Your task to perform on an android device: Clear the cart on amazon.com. Add "macbook" to the cart on amazon.com, then select checkout. Image 0: 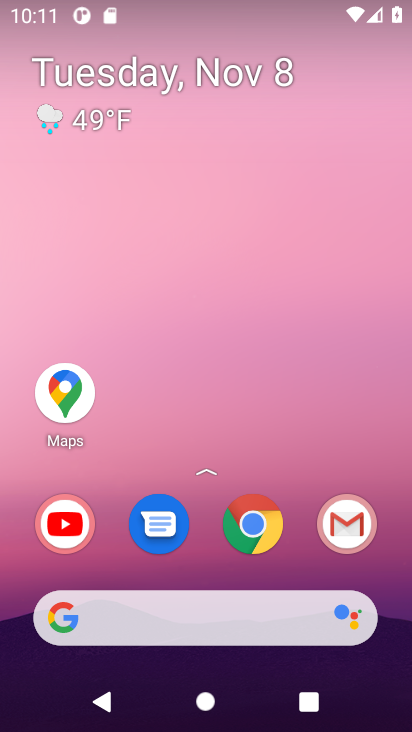
Step 0: click (278, 544)
Your task to perform on an android device: Clear the cart on amazon.com. Add "macbook" to the cart on amazon.com, then select checkout. Image 1: 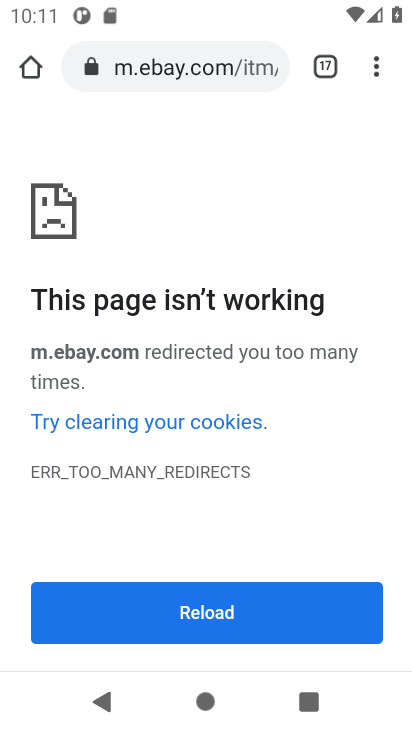
Step 1: click (196, 70)
Your task to perform on an android device: Clear the cart on amazon.com. Add "macbook" to the cart on amazon.com, then select checkout. Image 2: 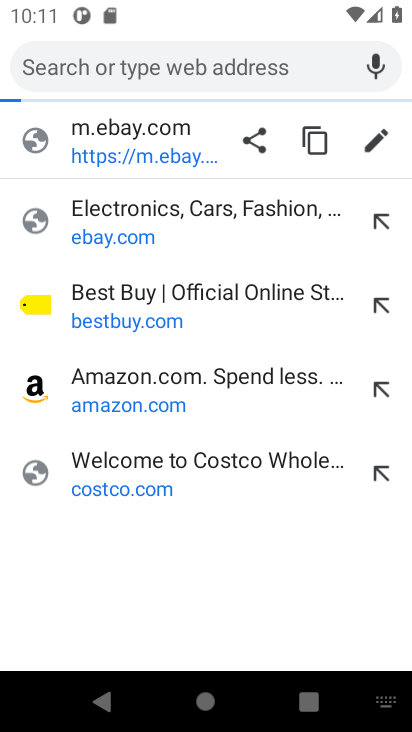
Step 2: click (119, 371)
Your task to perform on an android device: Clear the cart on amazon.com. Add "macbook" to the cart on amazon.com, then select checkout. Image 3: 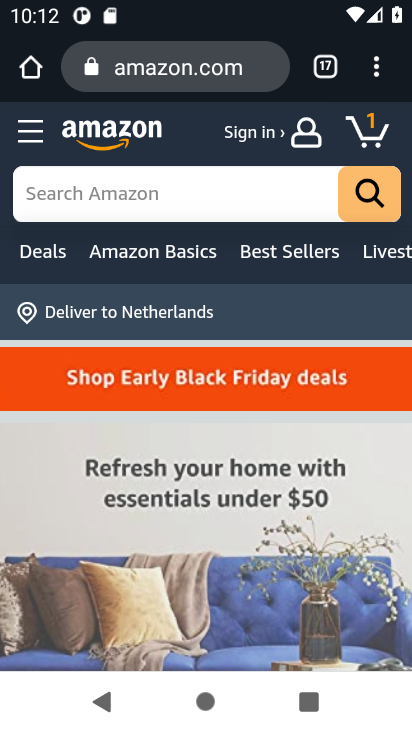
Step 3: click (373, 139)
Your task to perform on an android device: Clear the cart on amazon.com. Add "macbook" to the cart on amazon.com, then select checkout. Image 4: 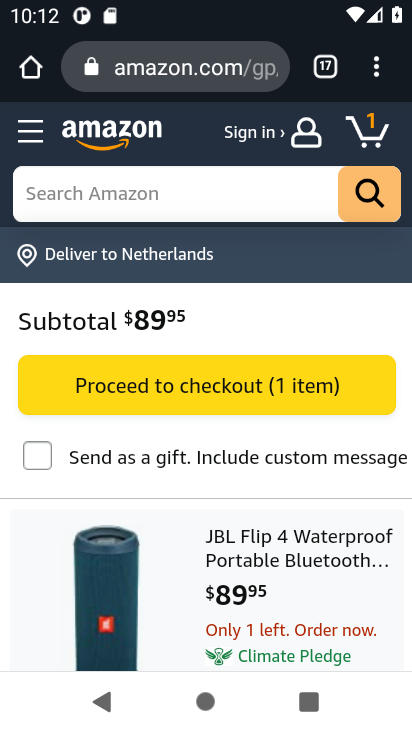
Step 4: drag from (159, 456) to (155, 213)
Your task to perform on an android device: Clear the cart on amazon.com. Add "macbook" to the cart on amazon.com, then select checkout. Image 5: 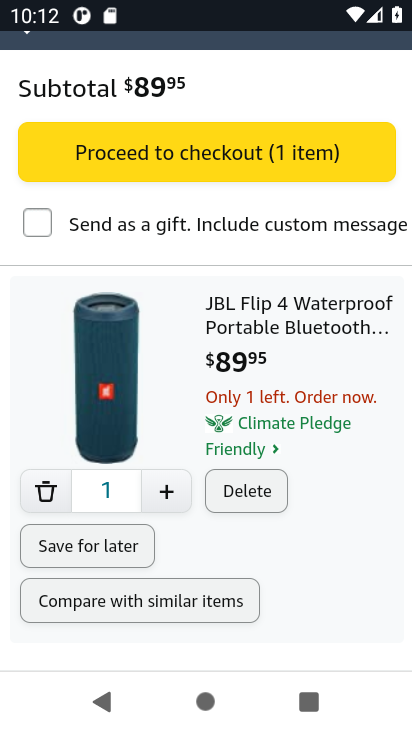
Step 5: click (237, 489)
Your task to perform on an android device: Clear the cart on amazon.com. Add "macbook" to the cart on amazon.com, then select checkout. Image 6: 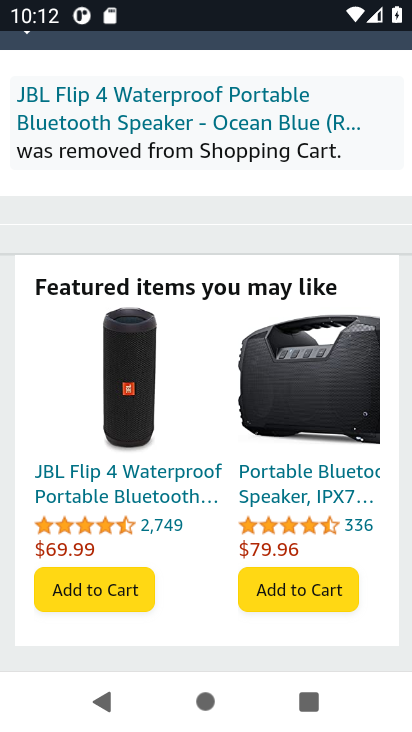
Step 6: drag from (189, 416) to (182, 533)
Your task to perform on an android device: Clear the cart on amazon.com. Add "macbook" to the cart on amazon.com, then select checkout. Image 7: 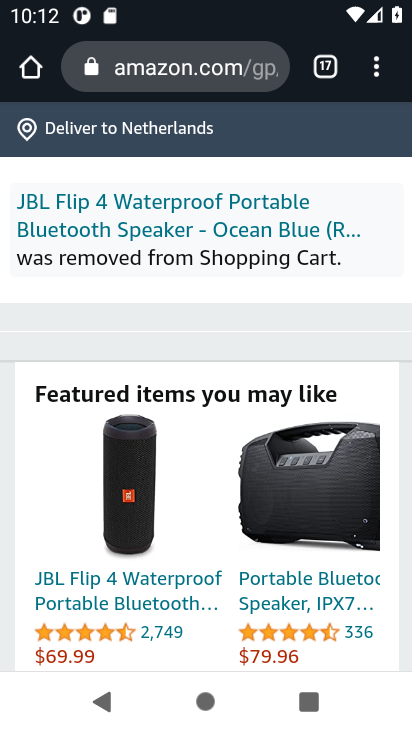
Step 7: drag from (226, 184) to (247, 464)
Your task to perform on an android device: Clear the cart on amazon.com. Add "macbook" to the cart on amazon.com, then select checkout. Image 8: 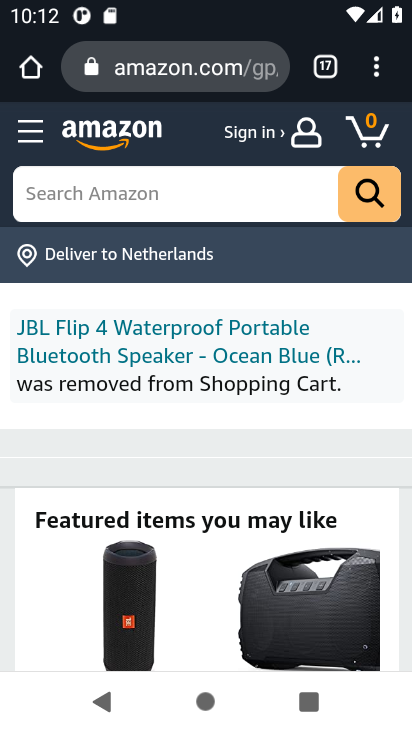
Step 8: click (168, 195)
Your task to perform on an android device: Clear the cart on amazon.com. Add "macbook" to the cart on amazon.com, then select checkout. Image 9: 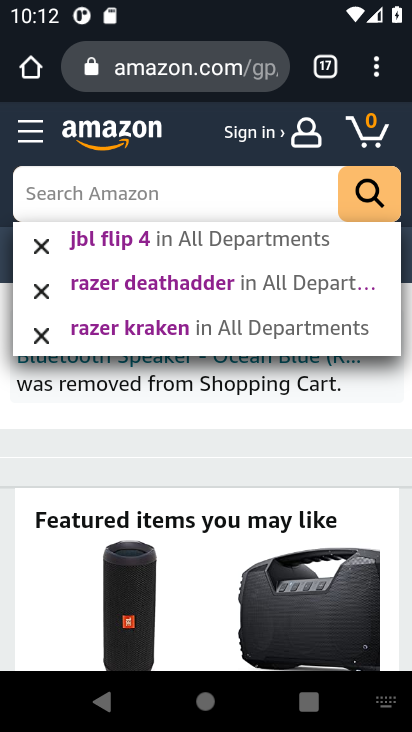
Step 9: type "macbook"
Your task to perform on an android device: Clear the cart on amazon.com. Add "macbook" to the cart on amazon.com, then select checkout. Image 10: 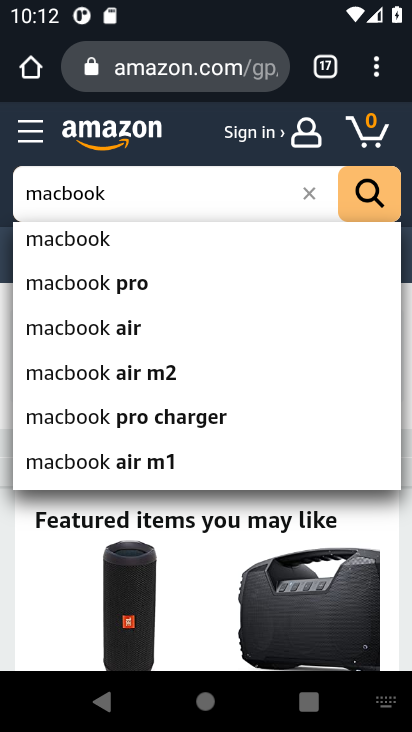
Step 10: click (81, 239)
Your task to perform on an android device: Clear the cart on amazon.com. Add "macbook" to the cart on amazon.com, then select checkout. Image 11: 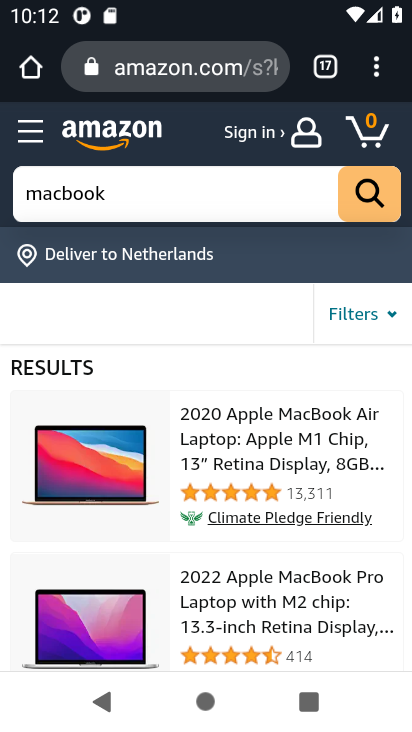
Step 11: click (215, 477)
Your task to perform on an android device: Clear the cart on amazon.com. Add "macbook" to the cart on amazon.com, then select checkout. Image 12: 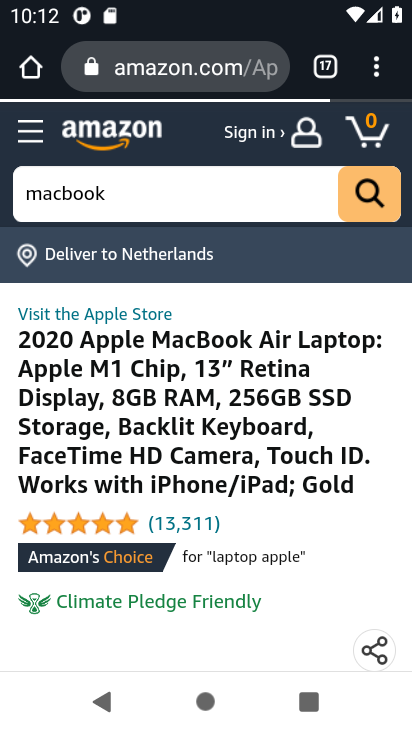
Step 12: drag from (226, 533) to (199, 190)
Your task to perform on an android device: Clear the cart on amazon.com. Add "macbook" to the cart on amazon.com, then select checkout. Image 13: 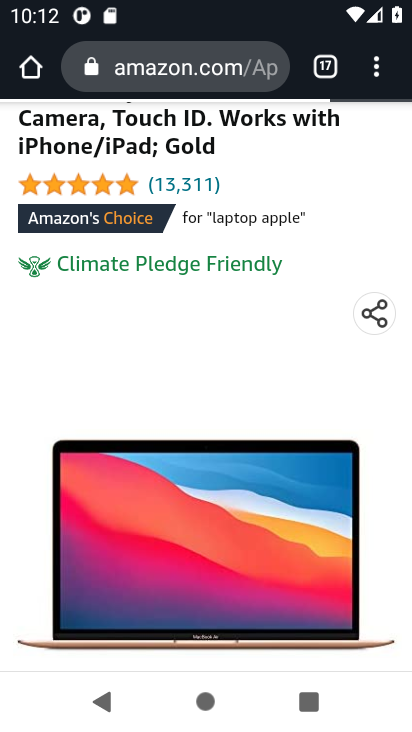
Step 13: drag from (198, 393) to (196, 193)
Your task to perform on an android device: Clear the cart on amazon.com. Add "macbook" to the cart on amazon.com, then select checkout. Image 14: 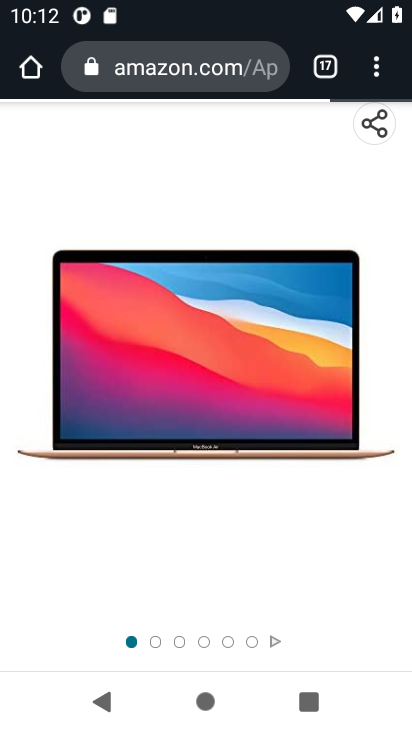
Step 14: drag from (200, 538) to (182, 178)
Your task to perform on an android device: Clear the cart on amazon.com. Add "macbook" to the cart on amazon.com, then select checkout. Image 15: 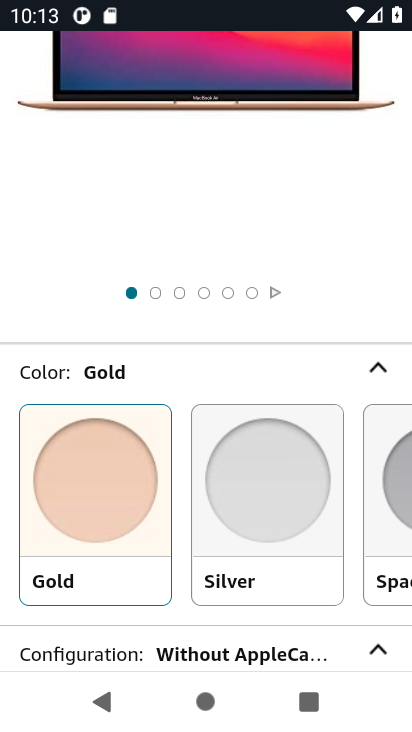
Step 15: drag from (177, 500) to (163, 195)
Your task to perform on an android device: Clear the cart on amazon.com. Add "macbook" to the cart on amazon.com, then select checkout. Image 16: 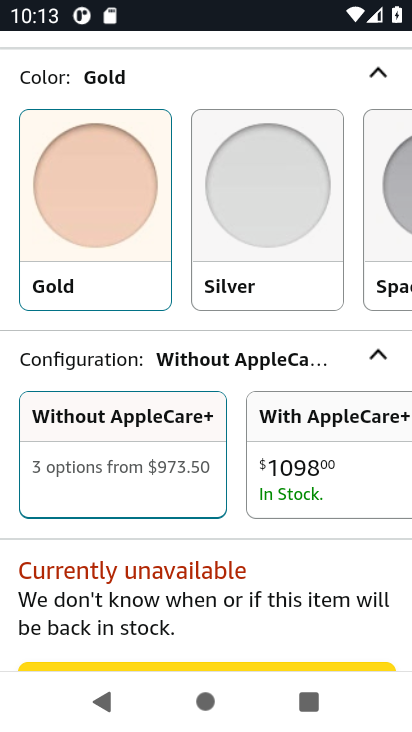
Step 16: drag from (173, 531) to (172, 301)
Your task to perform on an android device: Clear the cart on amazon.com. Add "macbook" to the cart on amazon.com, then select checkout. Image 17: 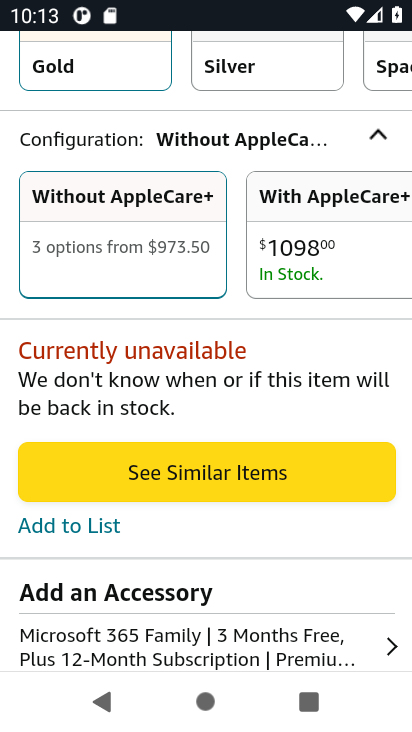
Step 17: drag from (172, 301) to (189, 678)
Your task to perform on an android device: Clear the cart on amazon.com. Add "macbook" to the cart on amazon.com, then select checkout. Image 18: 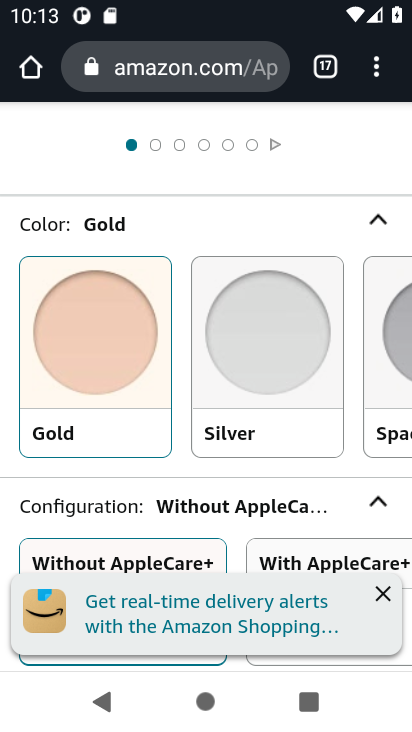
Step 18: press back button
Your task to perform on an android device: Clear the cart on amazon.com. Add "macbook" to the cart on amazon.com, then select checkout. Image 19: 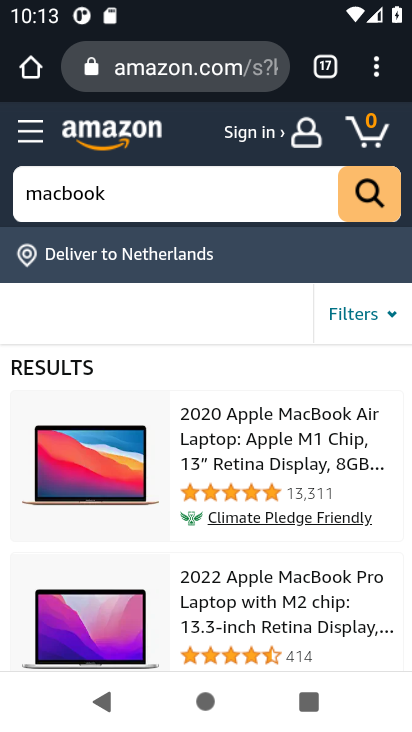
Step 19: drag from (288, 514) to (274, 305)
Your task to perform on an android device: Clear the cart on amazon.com. Add "macbook" to the cart on amazon.com, then select checkout. Image 20: 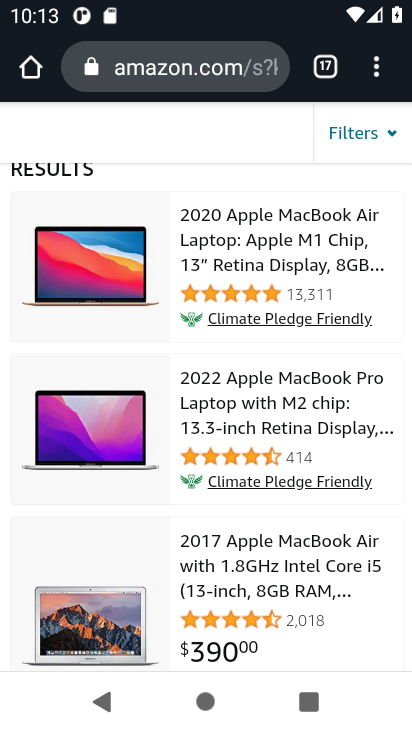
Step 20: click (110, 622)
Your task to perform on an android device: Clear the cart on amazon.com. Add "macbook" to the cart on amazon.com, then select checkout. Image 21: 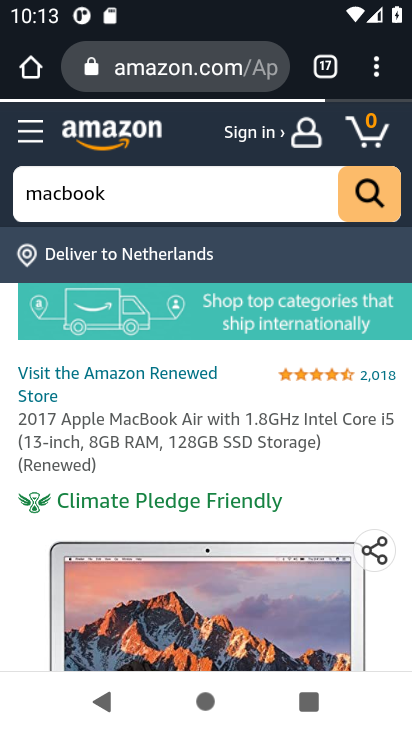
Step 21: drag from (203, 577) to (179, 242)
Your task to perform on an android device: Clear the cart on amazon.com. Add "macbook" to the cart on amazon.com, then select checkout. Image 22: 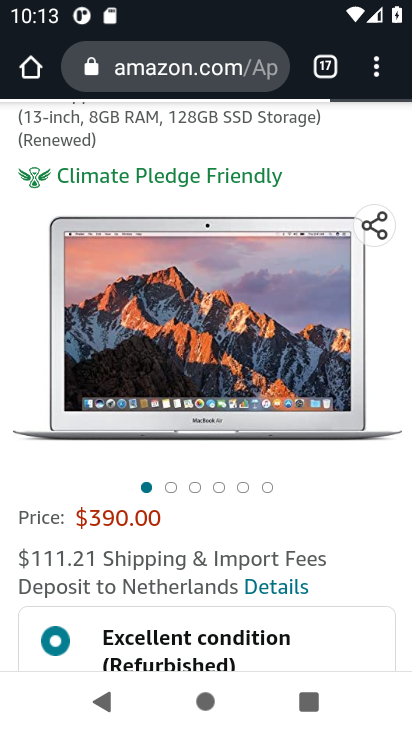
Step 22: drag from (182, 530) to (186, 233)
Your task to perform on an android device: Clear the cart on amazon.com. Add "macbook" to the cart on amazon.com, then select checkout. Image 23: 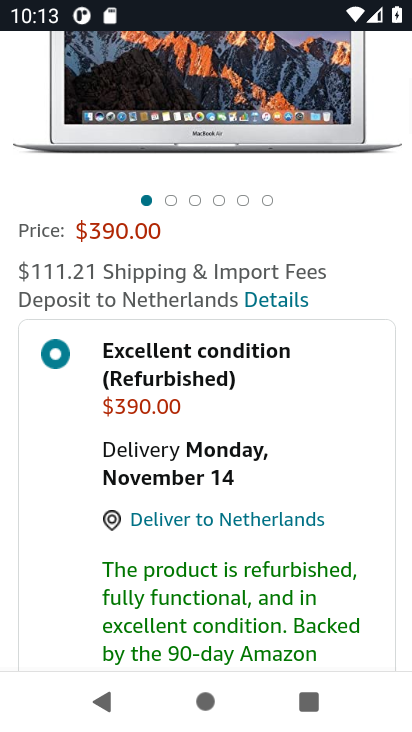
Step 23: drag from (185, 502) to (179, 203)
Your task to perform on an android device: Clear the cart on amazon.com. Add "macbook" to the cart on amazon.com, then select checkout. Image 24: 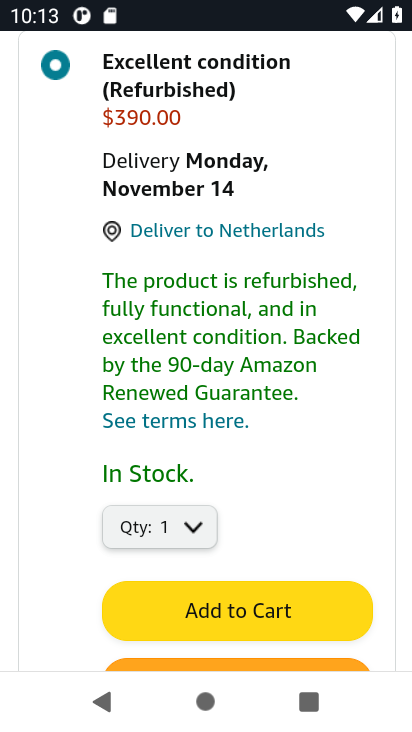
Step 24: click (198, 602)
Your task to perform on an android device: Clear the cart on amazon.com. Add "macbook" to the cart on amazon.com, then select checkout. Image 25: 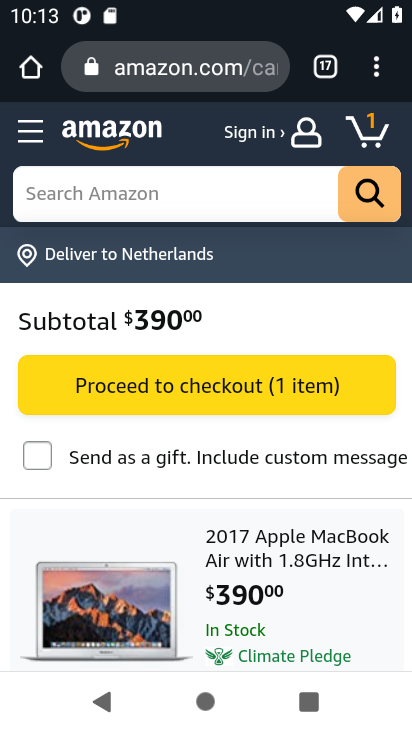
Step 25: click (205, 388)
Your task to perform on an android device: Clear the cart on amazon.com. Add "macbook" to the cart on amazon.com, then select checkout. Image 26: 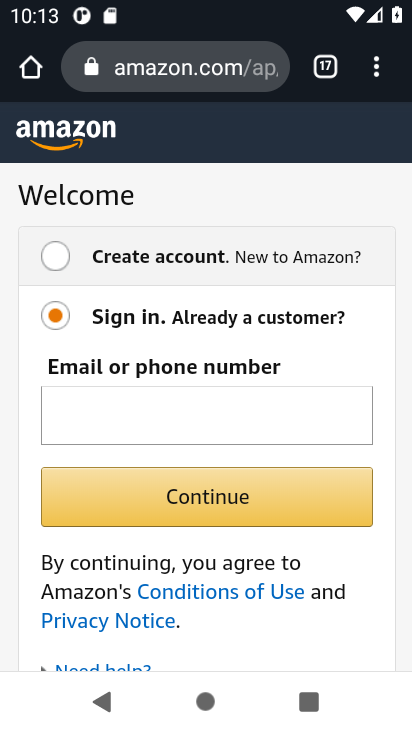
Step 26: task complete